Your task to perform on an android device: Is it going to rain this weekend? Image 0: 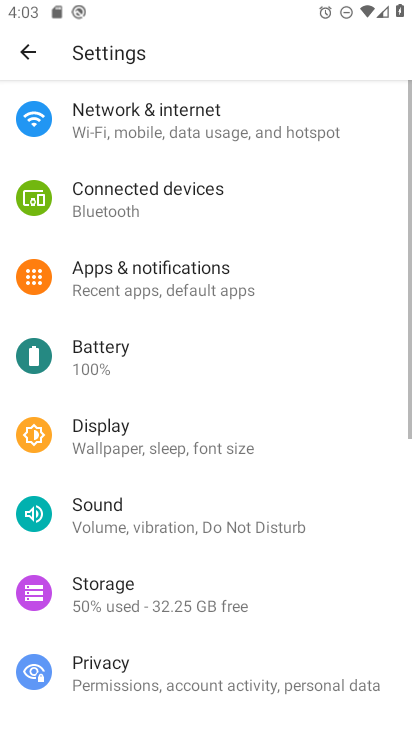
Step 0: press home button
Your task to perform on an android device: Is it going to rain this weekend? Image 1: 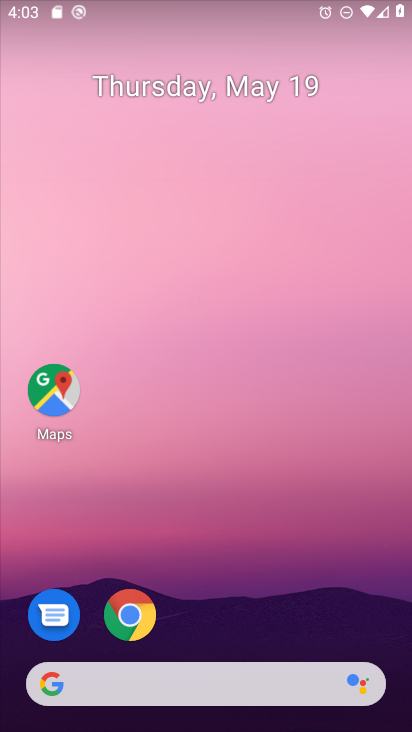
Step 1: click (122, 690)
Your task to perform on an android device: Is it going to rain this weekend? Image 2: 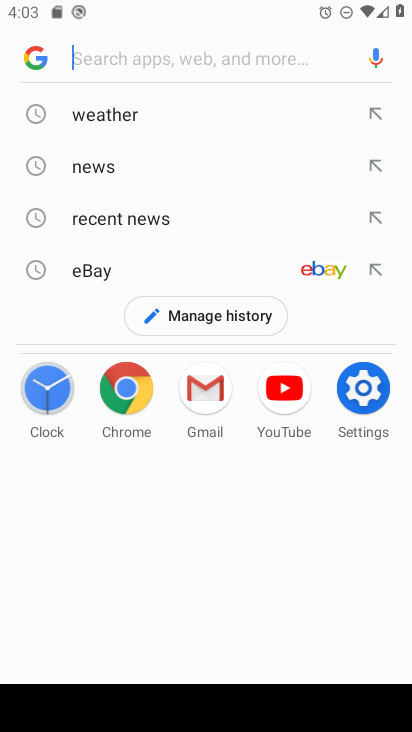
Step 2: type "Is it going to rain this weekend?"
Your task to perform on an android device: Is it going to rain this weekend? Image 3: 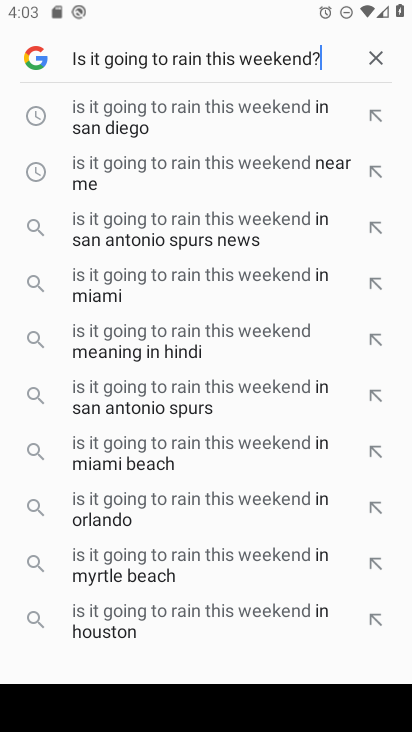
Step 3: press enter
Your task to perform on an android device: Is it going to rain this weekend? Image 4: 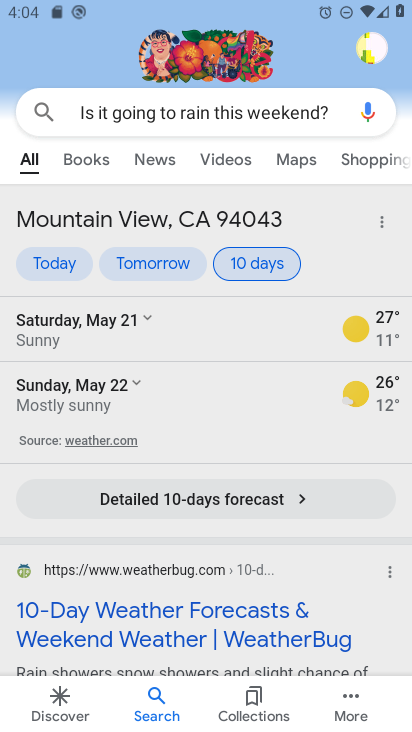
Step 4: task complete